Your task to perform on an android device: Search for vegetarian restaurants on Maps Image 0: 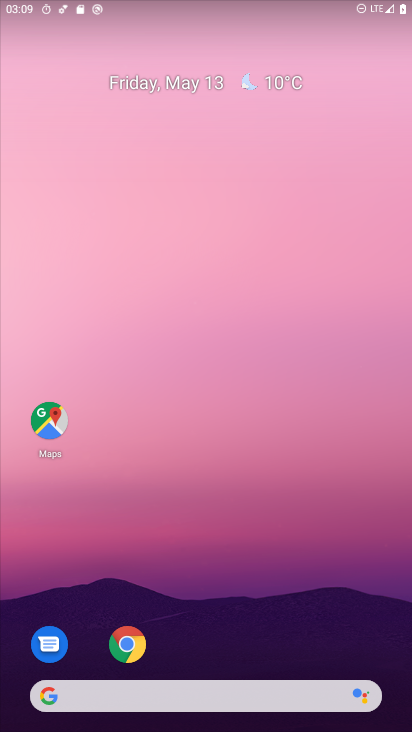
Step 0: drag from (285, 684) to (319, 138)
Your task to perform on an android device: Search for vegetarian restaurants on Maps Image 1: 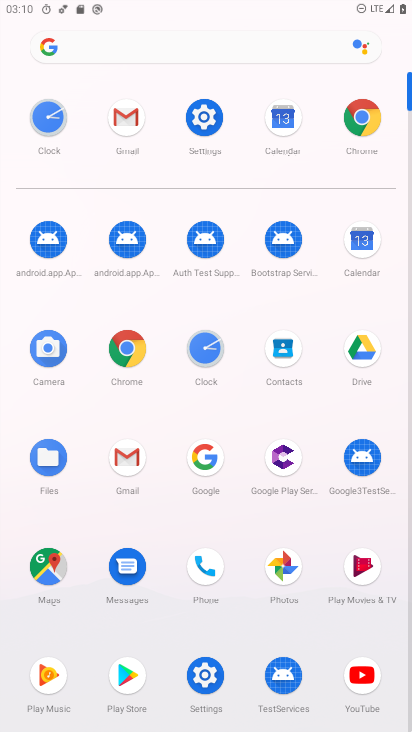
Step 1: press home button
Your task to perform on an android device: Search for vegetarian restaurants on Maps Image 2: 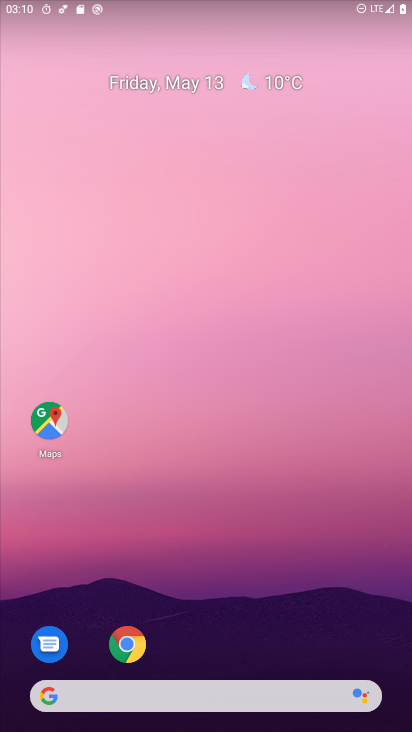
Step 2: click (77, 544)
Your task to perform on an android device: Search for vegetarian restaurants on Maps Image 3: 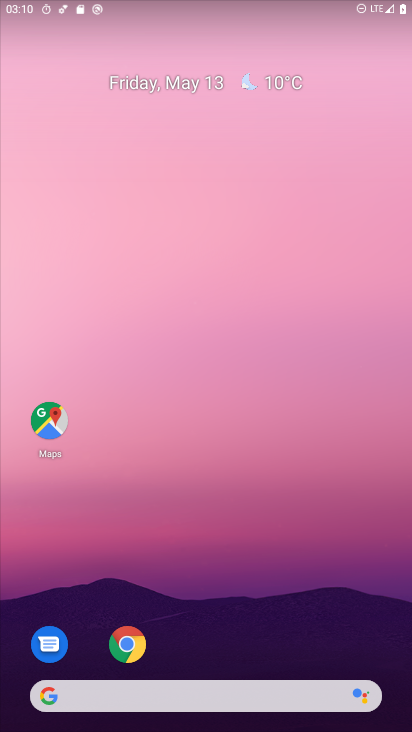
Step 3: drag from (27, 520) to (406, 512)
Your task to perform on an android device: Search for vegetarian restaurants on Maps Image 4: 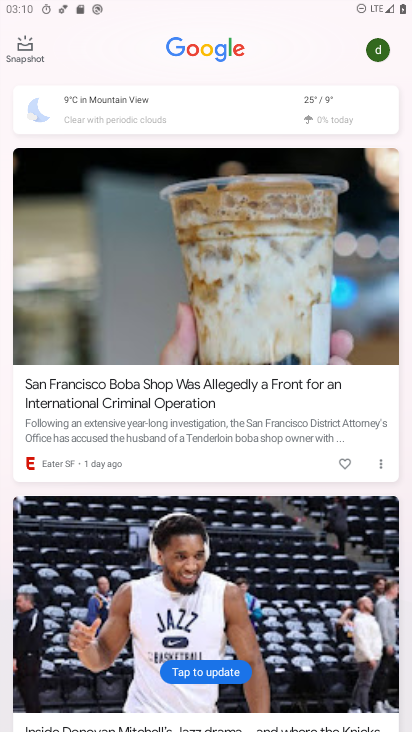
Step 4: drag from (333, 578) to (346, 632)
Your task to perform on an android device: Search for vegetarian restaurants on Maps Image 5: 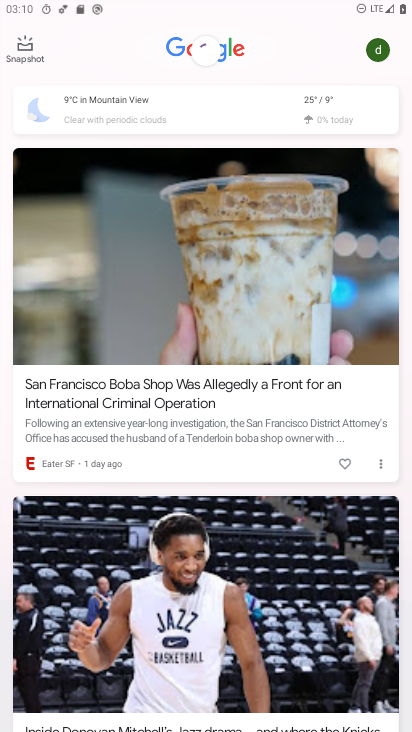
Step 5: click (291, 98)
Your task to perform on an android device: Search for vegetarian restaurants on Maps Image 6: 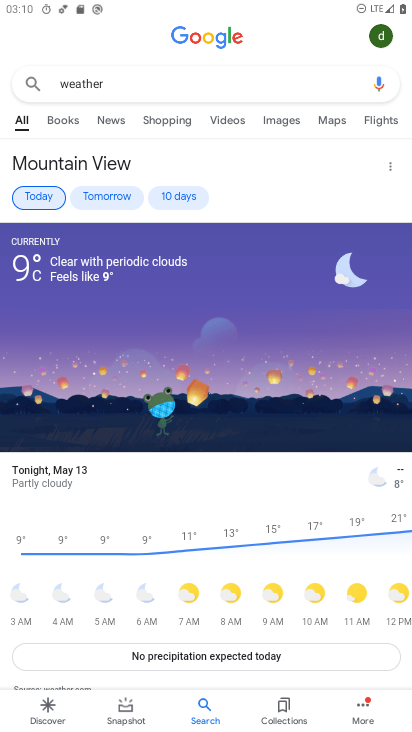
Step 6: drag from (303, 637) to (262, 731)
Your task to perform on an android device: Search for vegetarian restaurants on Maps Image 7: 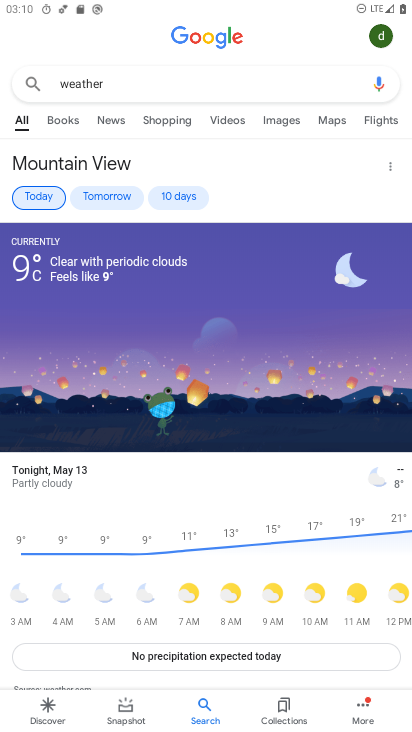
Step 7: drag from (405, 342) to (0, 405)
Your task to perform on an android device: Search for vegetarian restaurants on Maps Image 8: 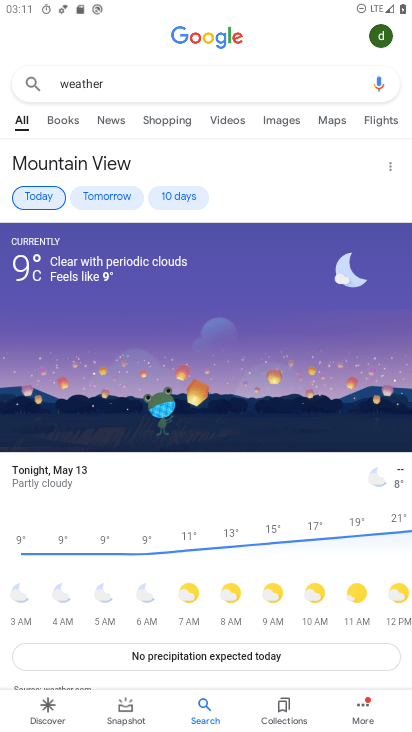
Step 8: press home button
Your task to perform on an android device: Search for vegetarian restaurants on Maps Image 9: 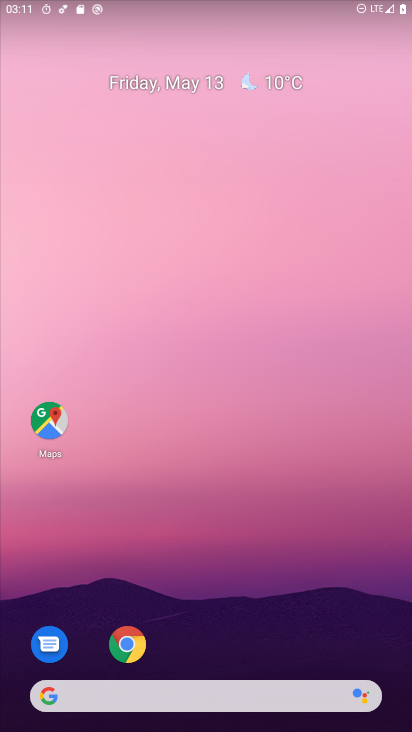
Step 9: drag from (296, 667) to (330, 39)
Your task to perform on an android device: Search for vegetarian restaurants on Maps Image 10: 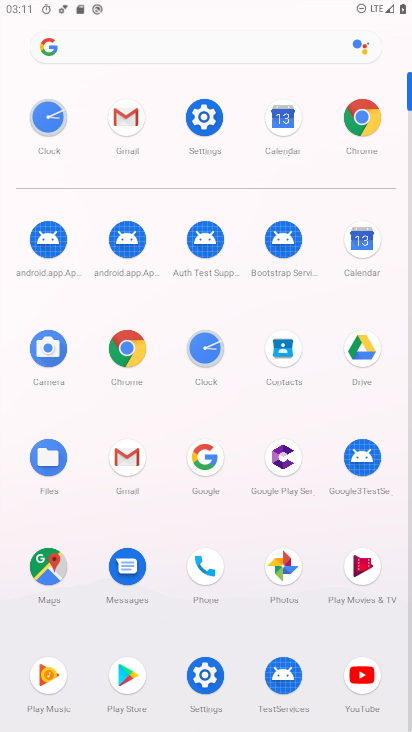
Step 10: click (40, 573)
Your task to perform on an android device: Search for vegetarian restaurants on Maps Image 11: 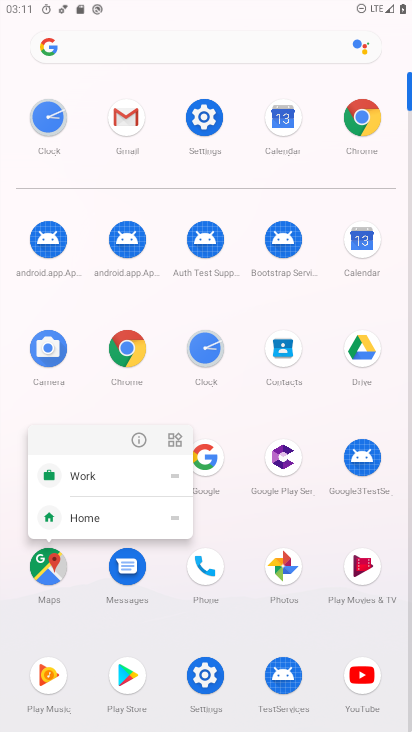
Step 11: click (41, 573)
Your task to perform on an android device: Search for vegetarian restaurants on Maps Image 12: 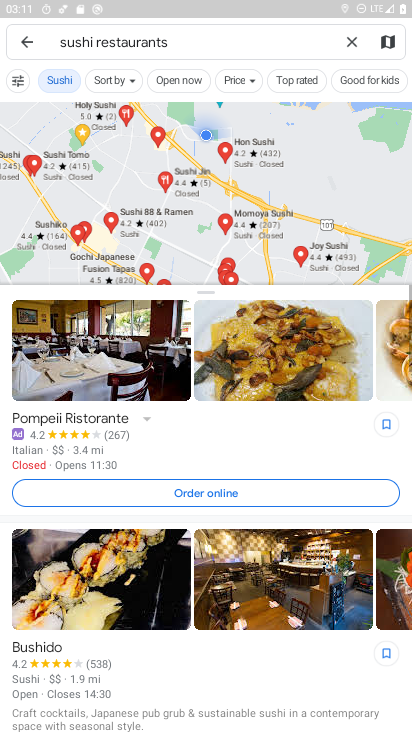
Step 12: click (352, 36)
Your task to perform on an android device: Search for vegetarian restaurants on Maps Image 13: 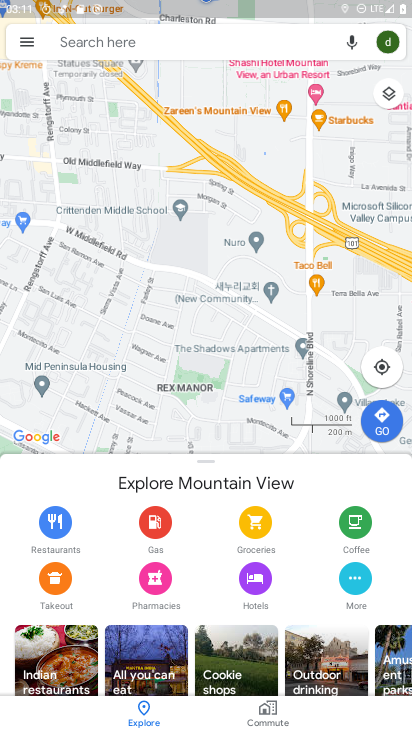
Step 13: click (168, 46)
Your task to perform on an android device: Search for vegetarian restaurants on Maps Image 14: 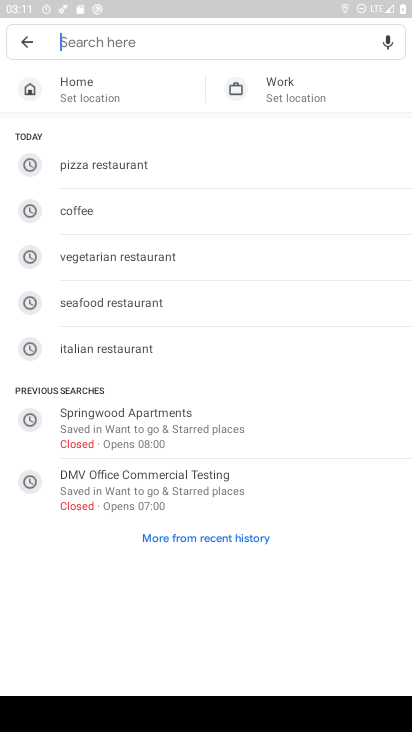
Step 14: click (159, 254)
Your task to perform on an android device: Search for vegetarian restaurants on Maps Image 15: 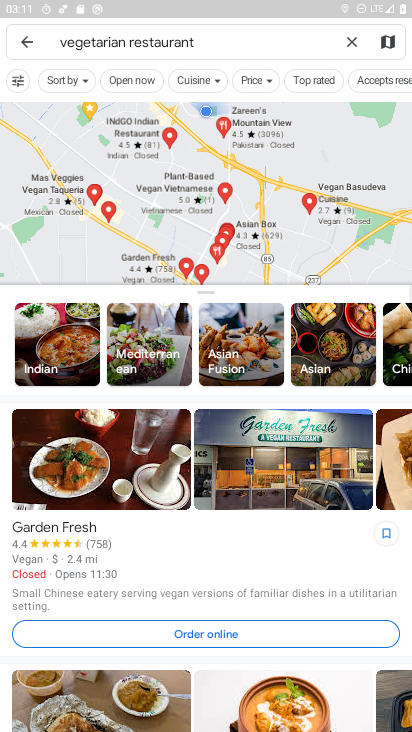
Step 15: task complete